Your task to perform on an android device: set the stopwatch Image 0: 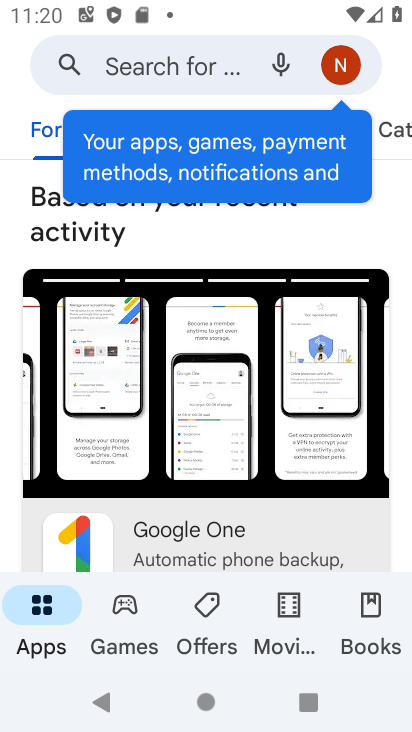
Step 0: press home button
Your task to perform on an android device: set the stopwatch Image 1: 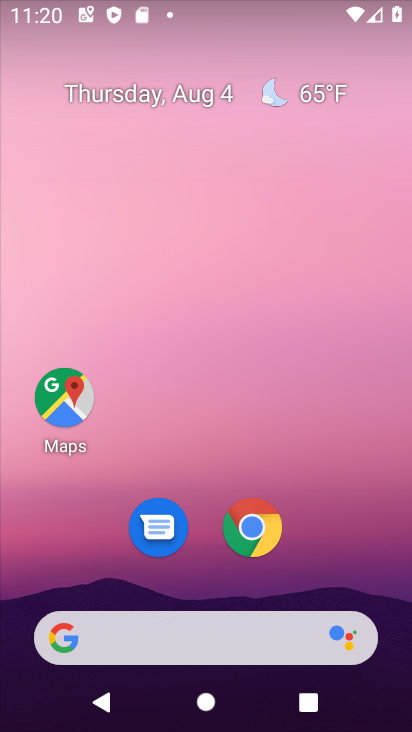
Step 1: drag from (165, 663) to (305, 28)
Your task to perform on an android device: set the stopwatch Image 2: 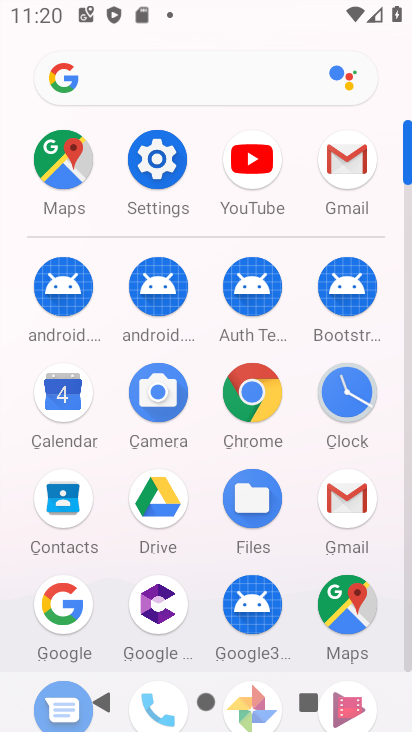
Step 2: click (346, 412)
Your task to perform on an android device: set the stopwatch Image 3: 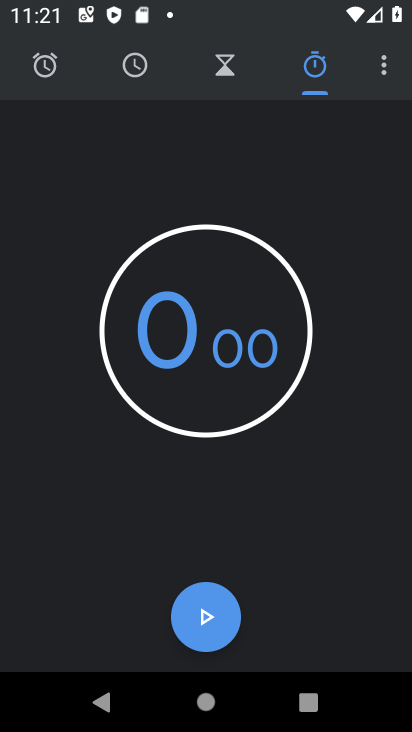
Step 3: task complete